Your task to perform on an android device: see creations saved in the google photos Image 0: 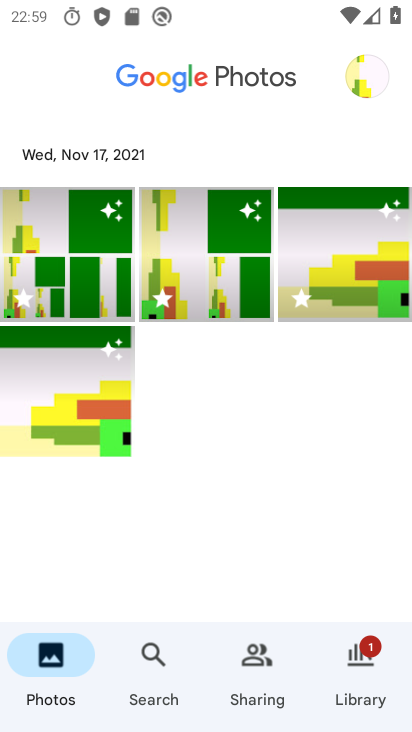
Step 0: click (164, 666)
Your task to perform on an android device: see creations saved in the google photos Image 1: 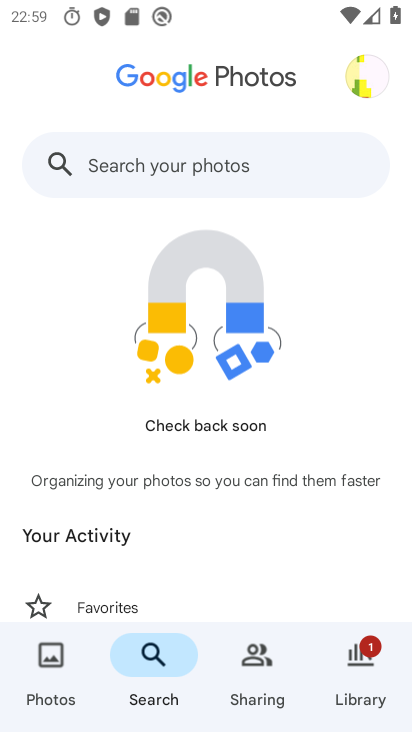
Step 1: drag from (216, 543) to (246, 26)
Your task to perform on an android device: see creations saved in the google photos Image 2: 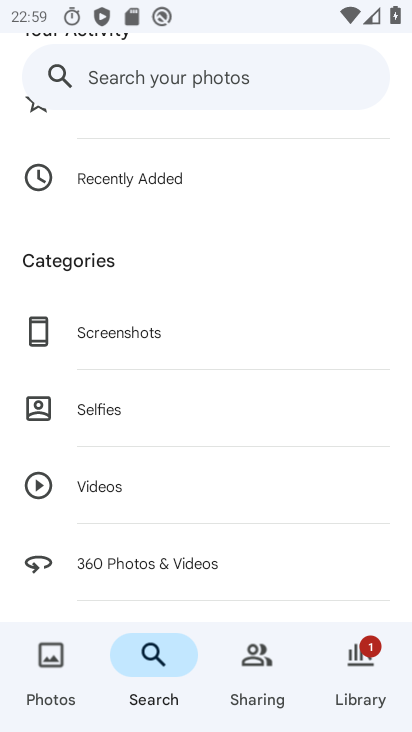
Step 2: drag from (182, 603) to (171, 279)
Your task to perform on an android device: see creations saved in the google photos Image 3: 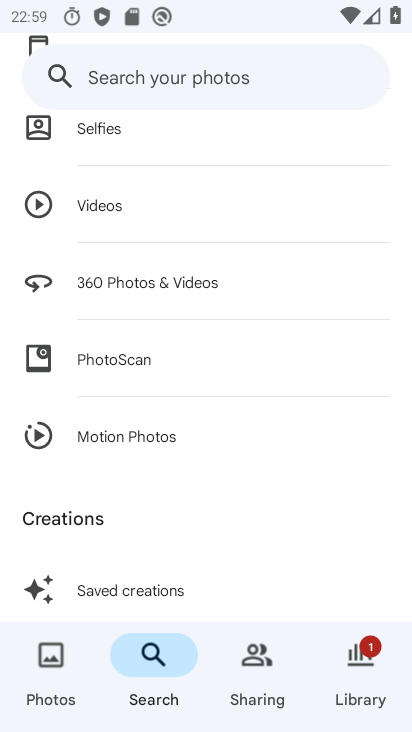
Step 3: click (125, 597)
Your task to perform on an android device: see creations saved in the google photos Image 4: 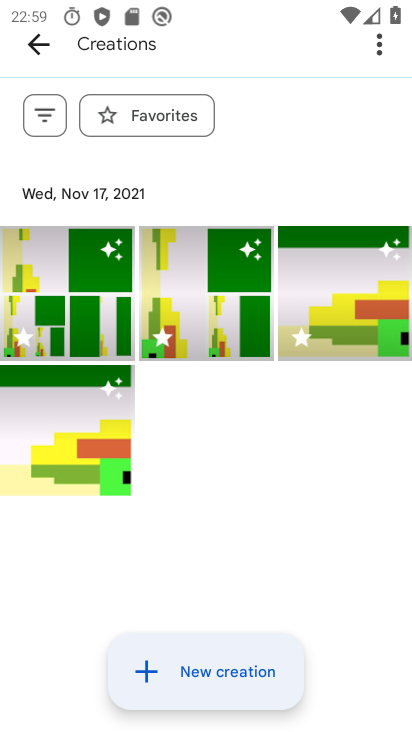
Step 4: task complete